Your task to perform on an android device: Search for Italian restaurants on Maps Image 0: 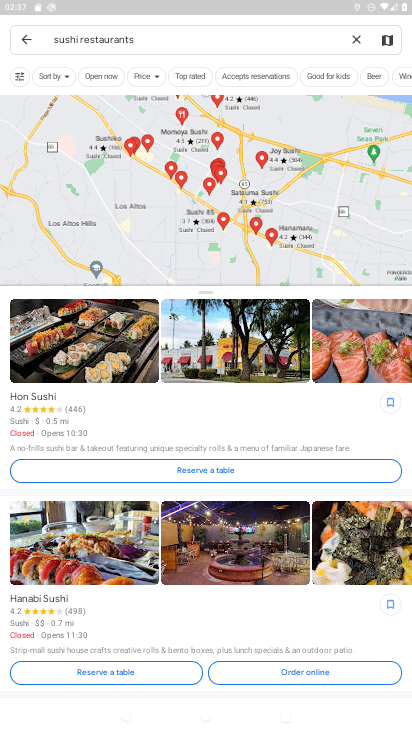
Step 0: task complete